Your task to perform on an android device: clear history in the chrome app Image 0: 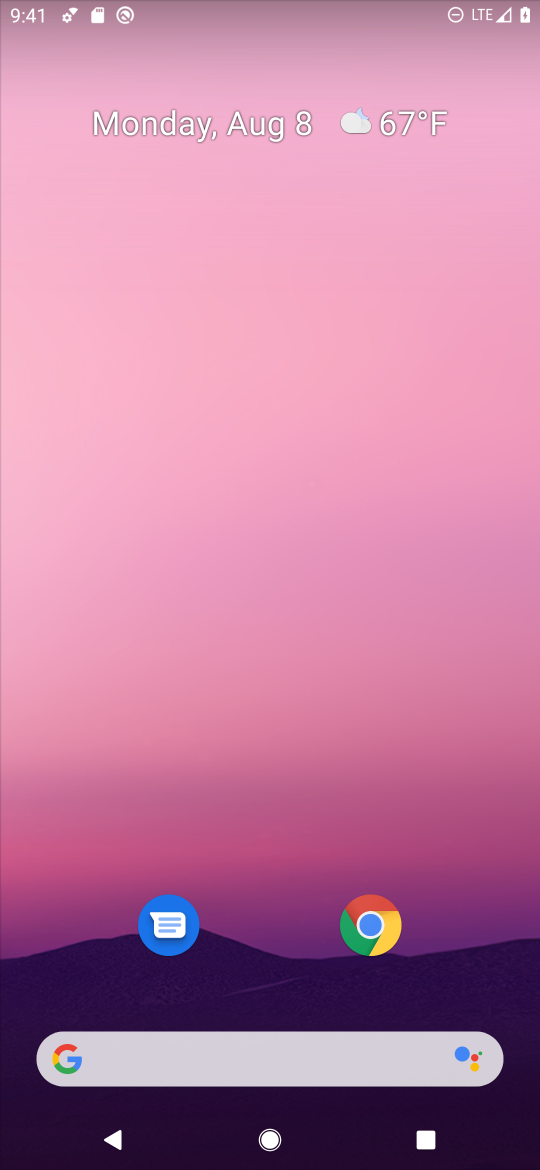
Step 0: drag from (284, 660) to (350, 48)
Your task to perform on an android device: clear history in the chrome app Image 1: 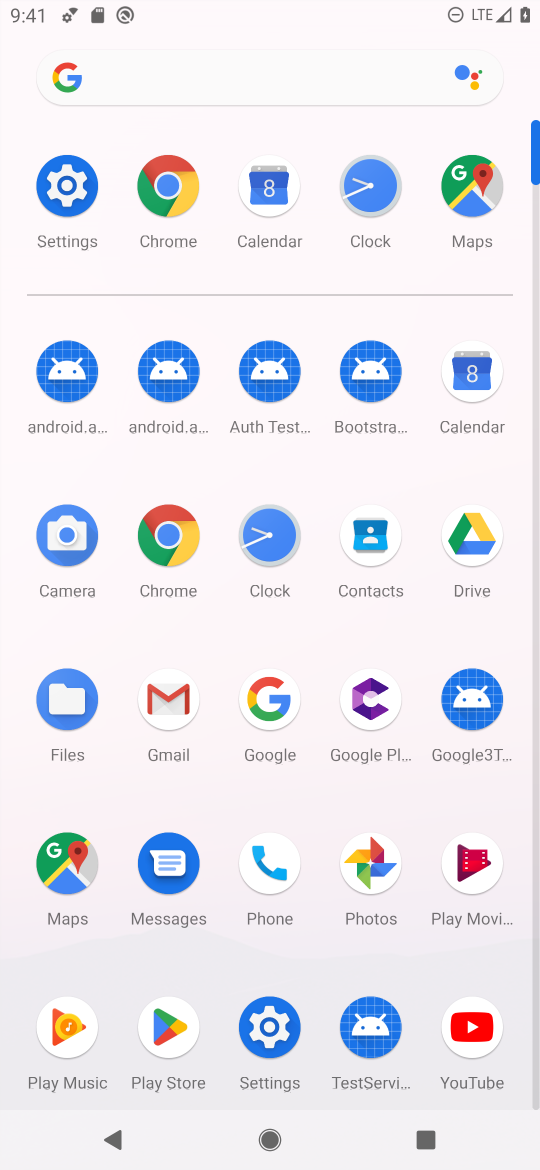
Step 1: click (169, 536)
Your task to perform on an android device: clear history in the chrome app Image 2: 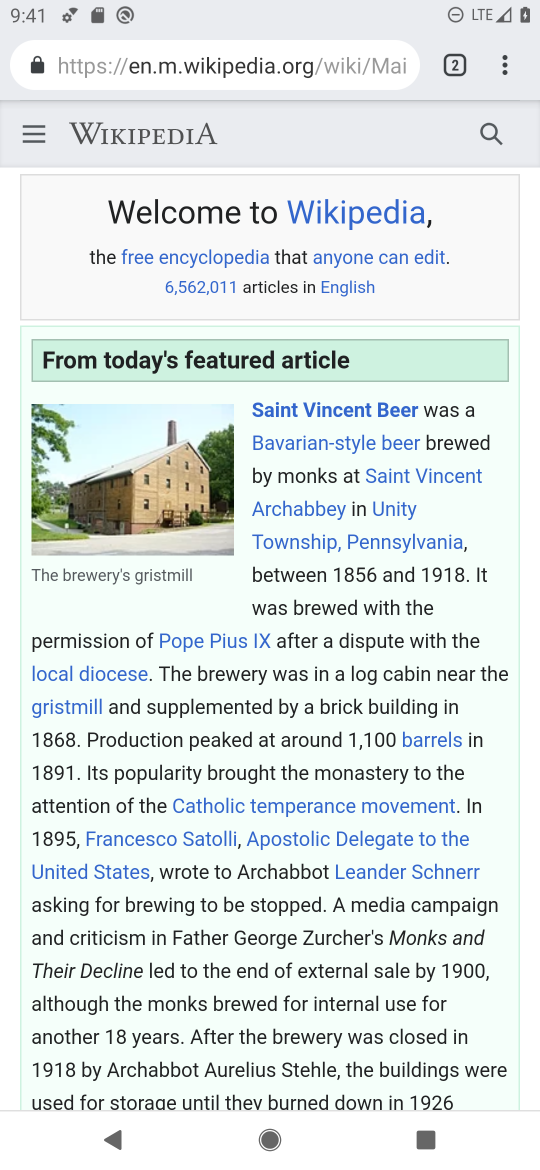
Step 2: drag from (516, 51) to (298, 435)
Your task to perform on an android device: clear history in the chrome app Image 3: 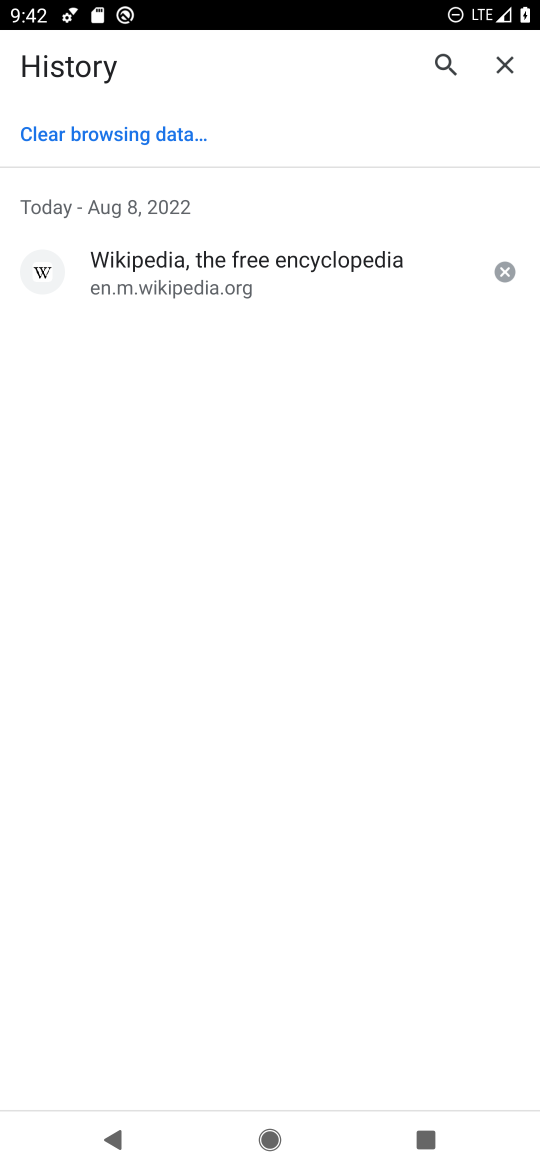
Step 3: click (152, 135)
Your task to perform on an android device: clear history in the chrome app Image 4: 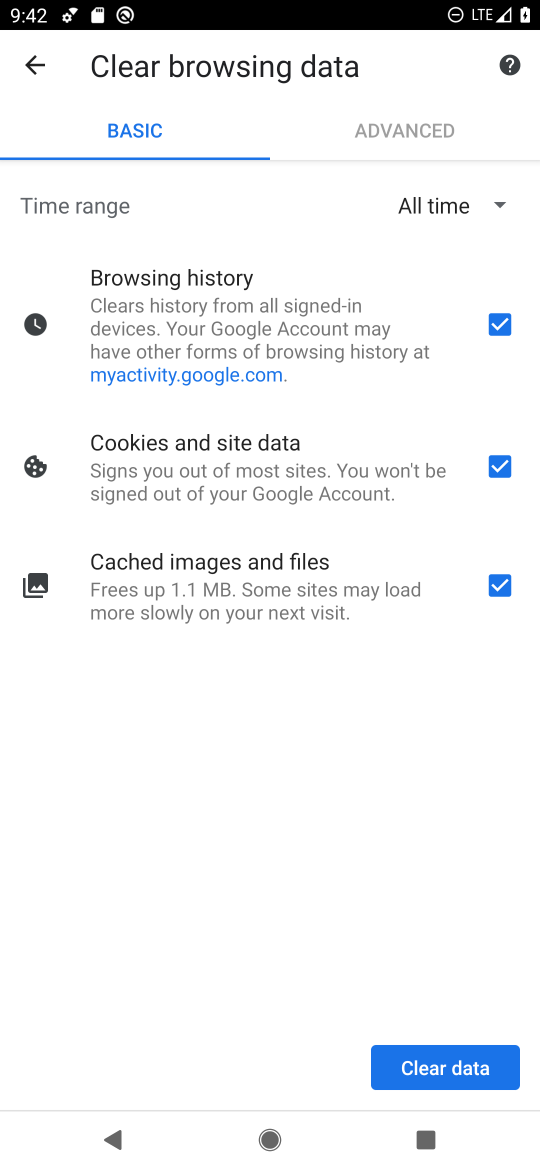
Step 4: click (452, 1062)
Your task to perform on an android device: clear history in the chrome app Image 5: 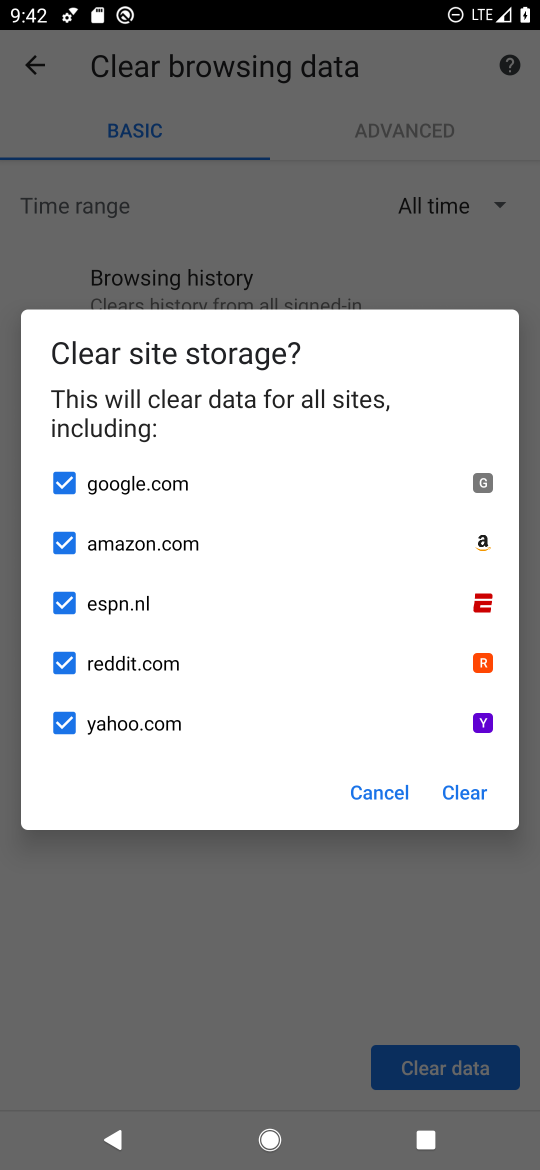
Step 5: click (477, 786)
Your task to perform on an android device: clear history in the chrome app Image 6: 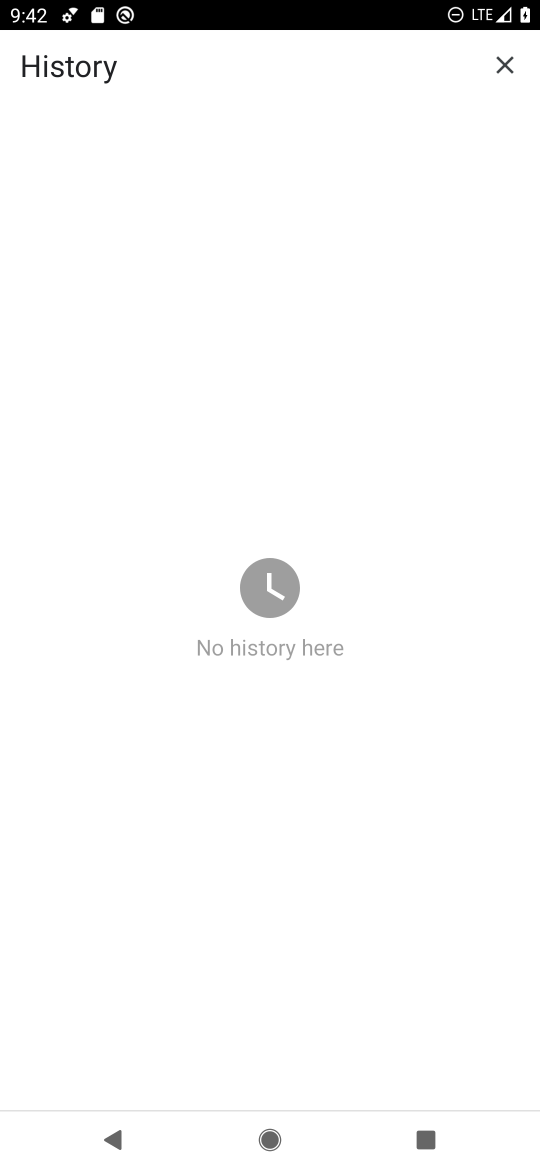
Step 6: task complete